Your task to perform on an android device: turn on showing notifications on the lock screen Image 0: 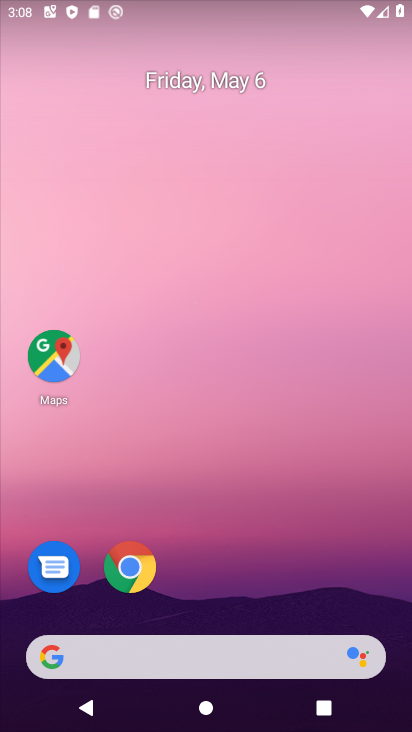
Step 0: drag from (155, 610) to (161, 156)
Your task to perform on an android device: turn on showing notifications on the lock screen Image 1: 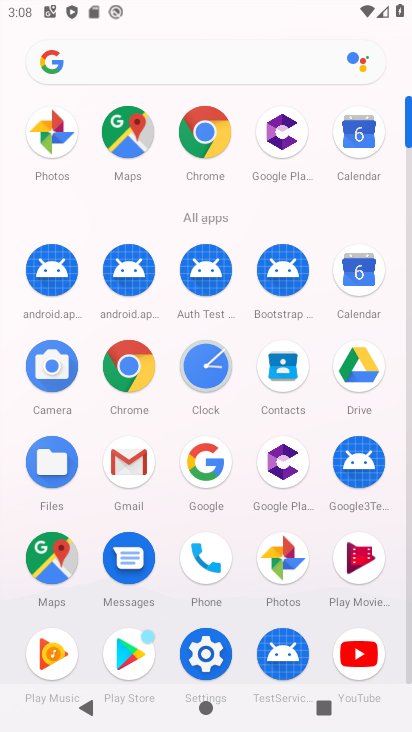
Step 1: click (208, 653)
Your task to perform on an android device: turn on showing notifications on the lock screen Image 2: 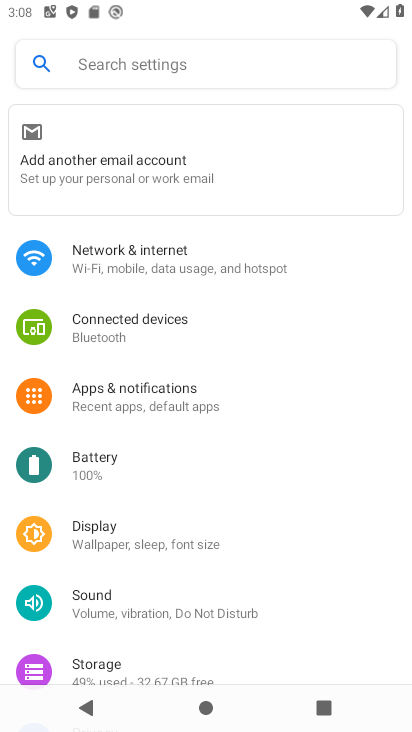
Step 2: click (166, 410)
Your task to perform on an android device: turn on showing notifications on the lock screen Image 3: 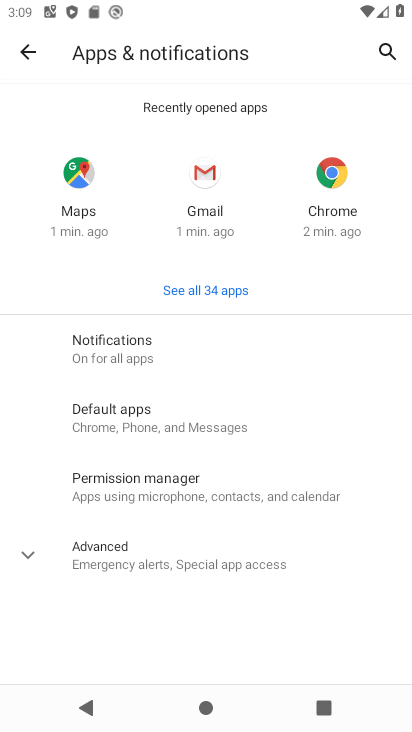
Step 3: click (126, 349)
Your task to perform on an android device: turn on showing notifications on the lock screen Image 4: 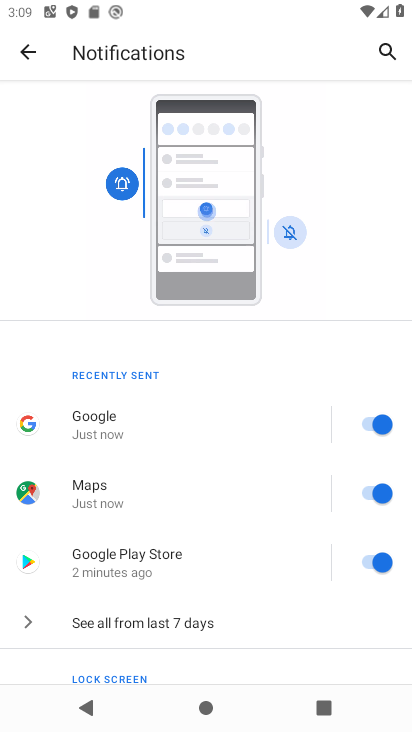
Step 4: drag from (172, 562) to (189, 362)
Your task to perform on an android device: turn on showing notifications on the lock screen Image 5: 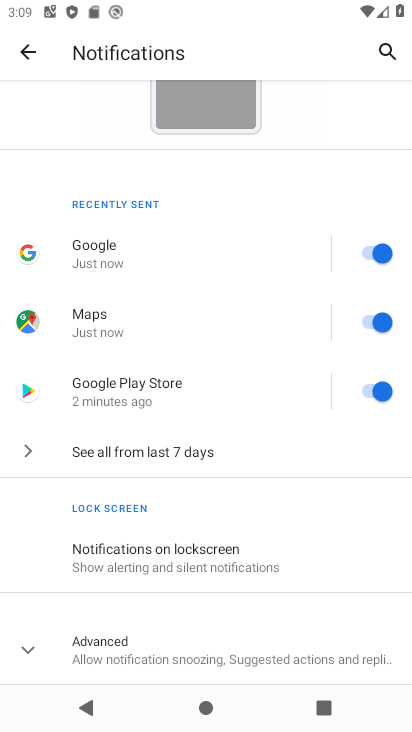
Step 5: click (139, 556)
Your task to perform on an android device: turn on showing notifications on the lock screen Image 6: 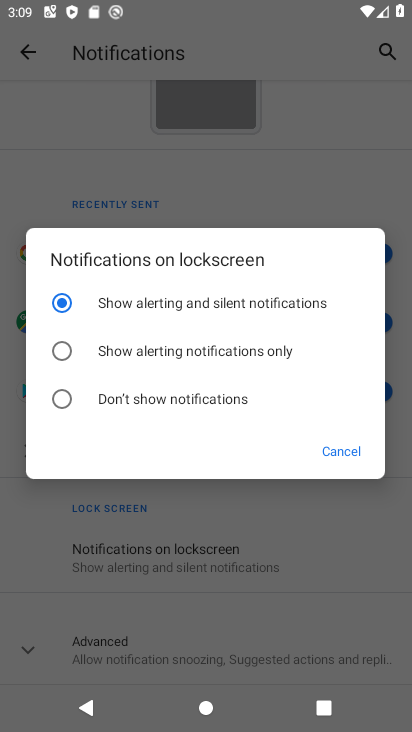
Step 6: task complete